Your task to perform on an android device: visit the assistant section in the google photos Image 0: 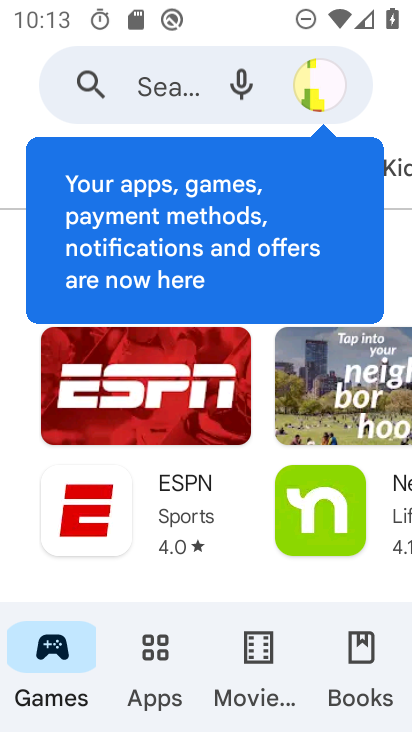
Step 0: press home button
Your task to perform on an android device: visit the assistant section in the google photos Image 1: 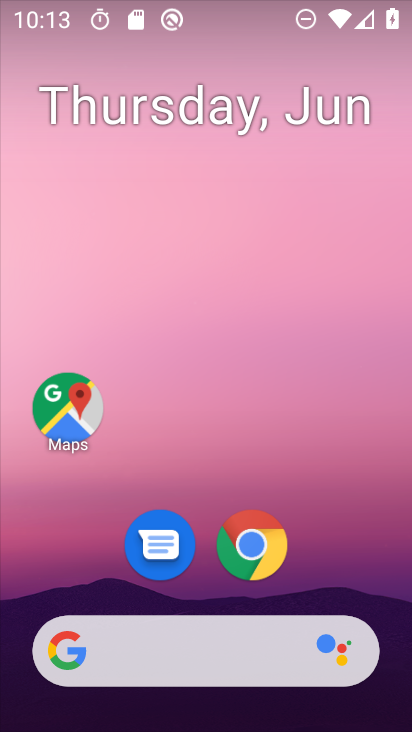
Step 1: drag from (208, 575) to (193, 5)
Your task to perform on an android device: visit the assistant section in the google photos Image 2: 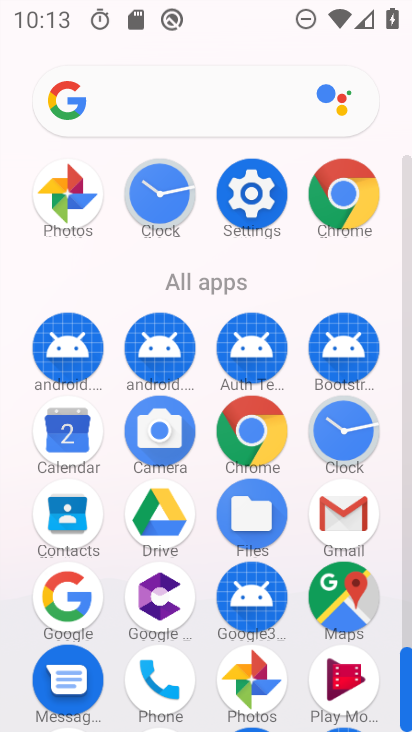
Step 2: drag from (211, 579) to (217, 346)
Your task to perform on an android device: visit the assistant section in the google photos Image 3: 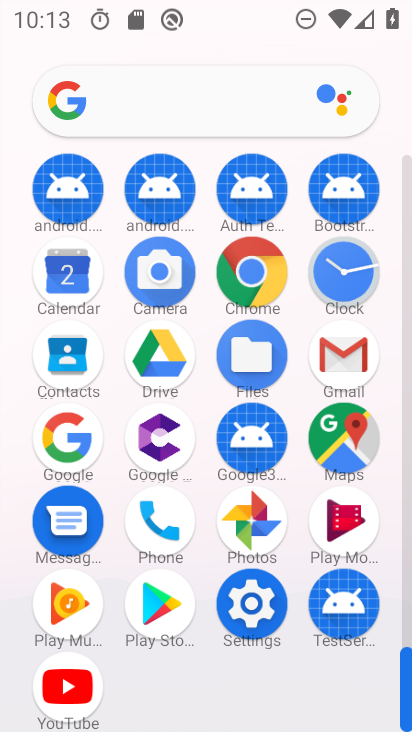
Step 3: click (262, 542)
Your task to perform on an android device: visit the assistant section in the google photos Image 4: 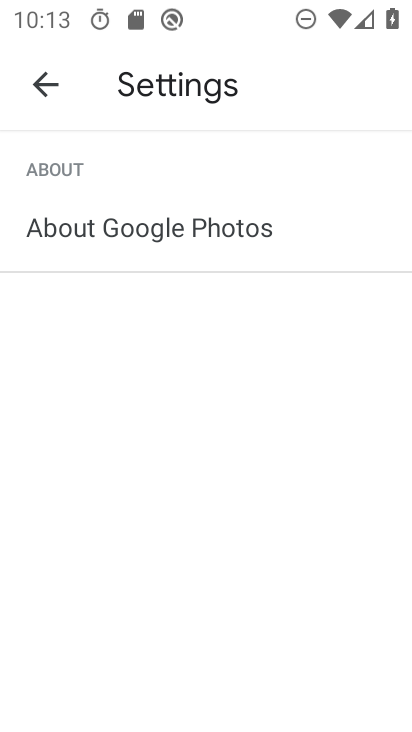
Step 4: click (58, 68)
Your task to perform on an android device: visit the assistant section in the google photos Image 5: 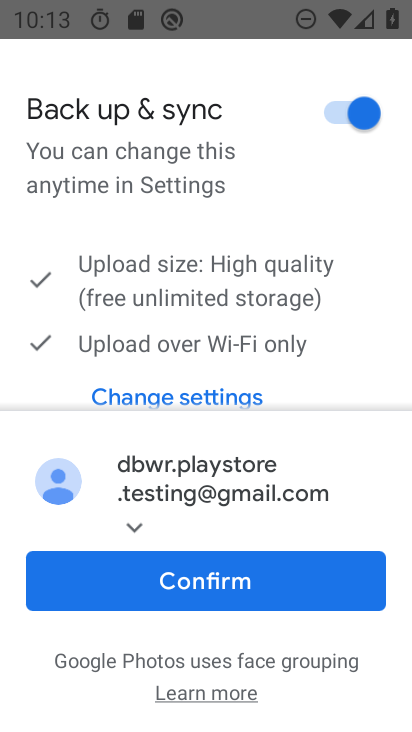
Step 5: click (220, 598)
Your task to perform on an android device: visit the assistant section in the google photos Image 6: 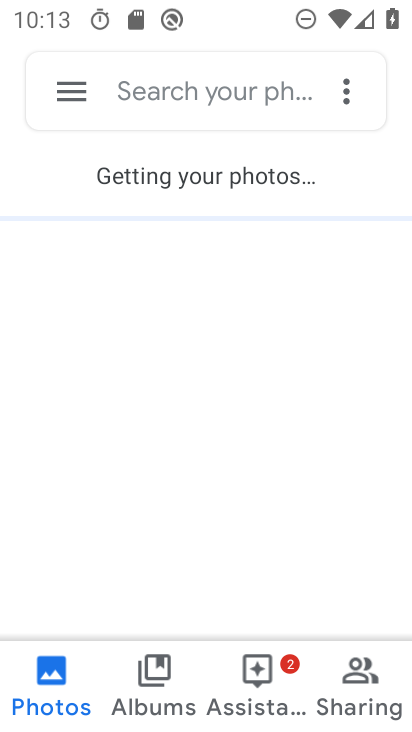
Step 6: click (268, 685)
Your task to perform on an android device: visit the assistant section in the google photos Image 7: 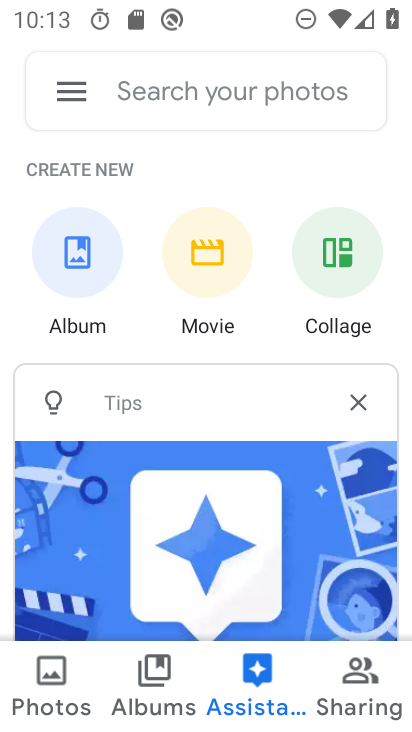
Step 7: task complete